Your task to perform on an android device: find snoozed emails in the gmail app Image 0: 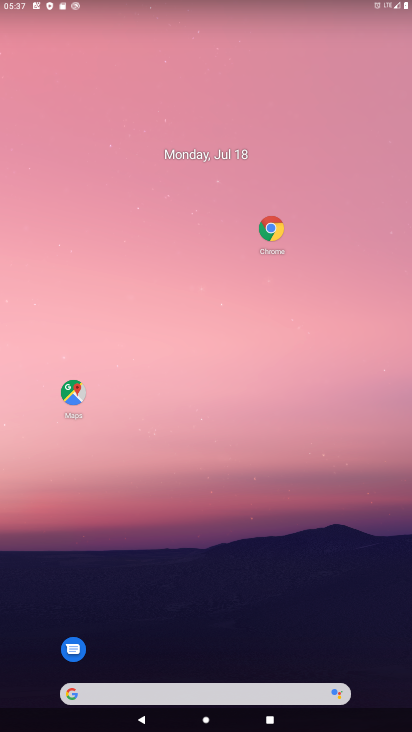
Step 0: drag from (261, 583) to (214, 108)
Your task to perform on an android device: find snoozed emails in the gmail app Image 1: 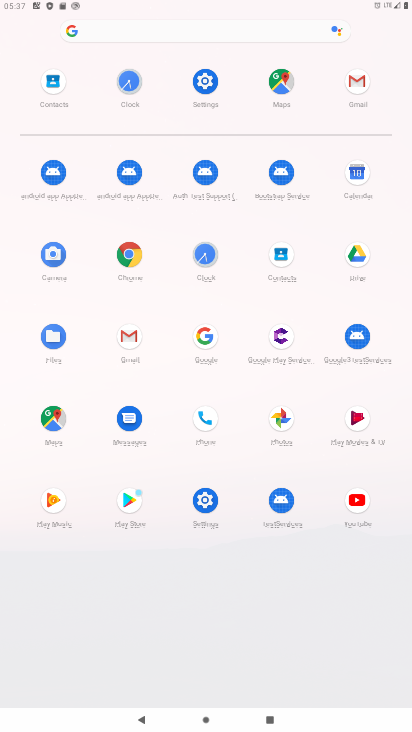
Step 1: click (357, 92)
Your task to perform on an android device: find snoozed emails in the gmail app Image 2: 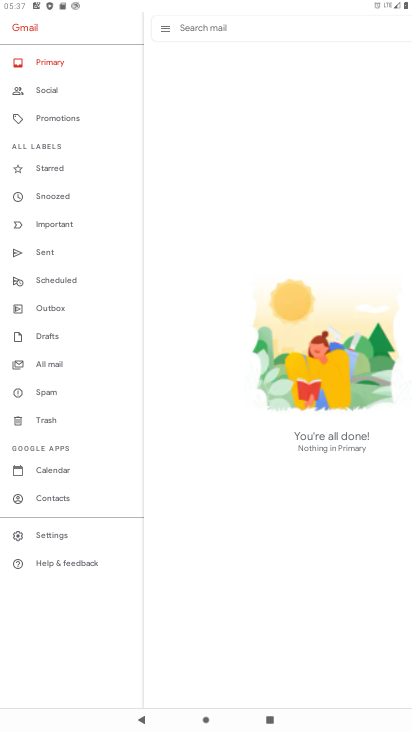
Step 2: click (87, 209)
Your task to perform on an android device: find snoozed emails in the gmail app Image 3: 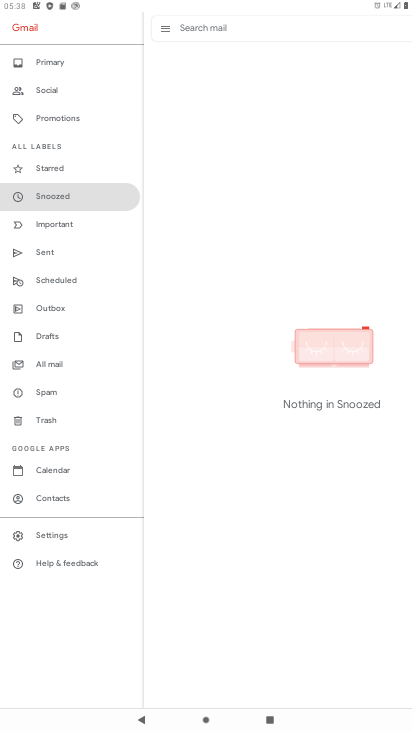
Step 3: task complete